Your task to perform on an android device: Go to Android settings Image 0: 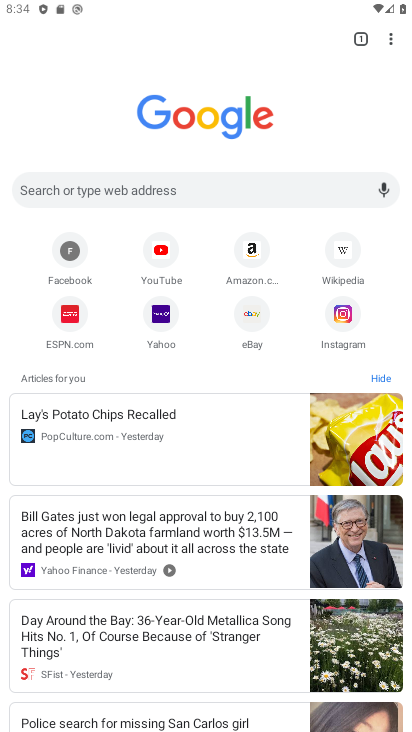
Step 0: press home button
Your task to perform on an android device: Go to Android settings Image 1: 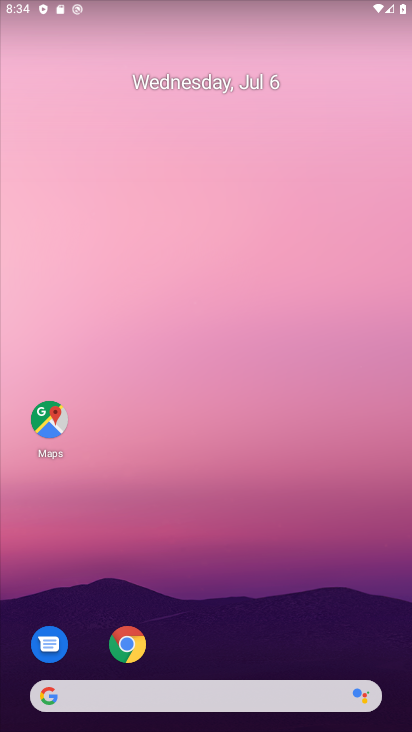
Step 1: drag from (215, 670) to (228, 171)
Your task to perform on an android device: Go to Android settings Image 2: 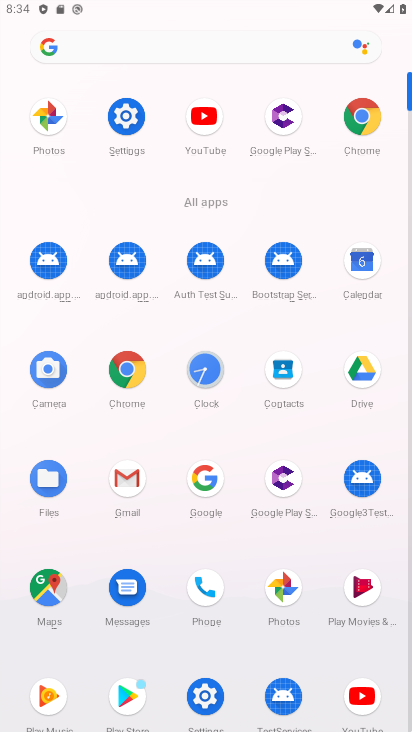
Step 2: click (137, 127)
Your task to perform on an android device: Go to Android settings Image 3: 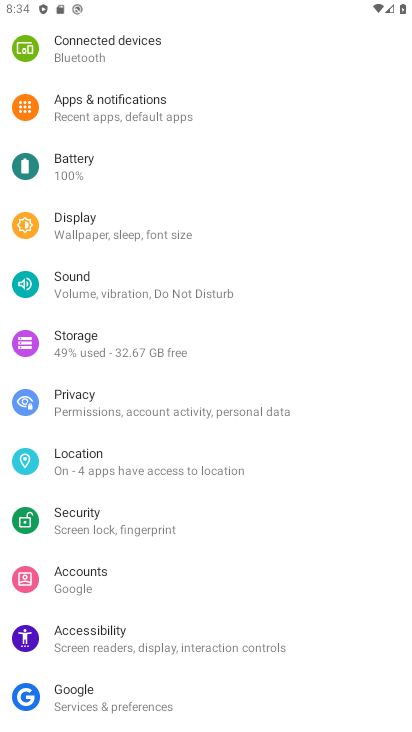
Step 3: drag from (167, 528) to (167, 165)
Your task to perform on an android device: Go to Android settings Image 4: 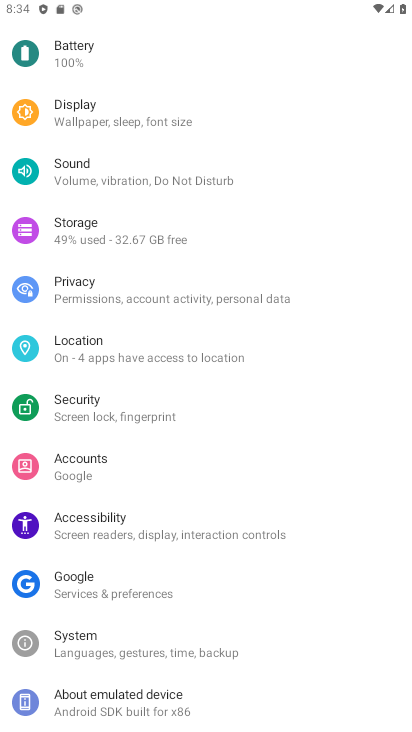
Step 4: click (142, 699)
Your task to perform on an android device: Go to Android settings Image 5: 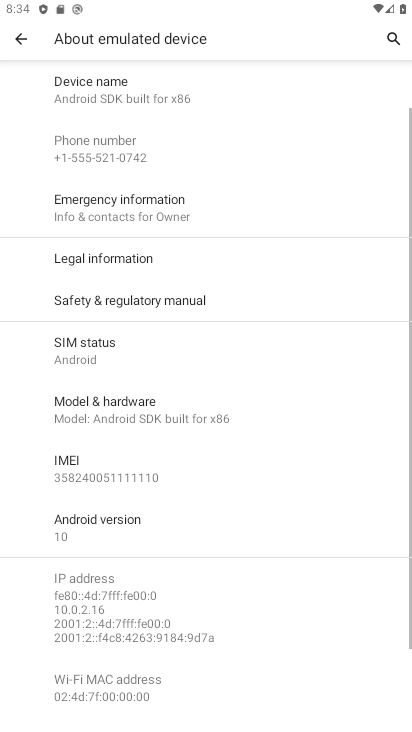
Step 5: task complete